Your task to perform on an android device: Open display settings Image 0: 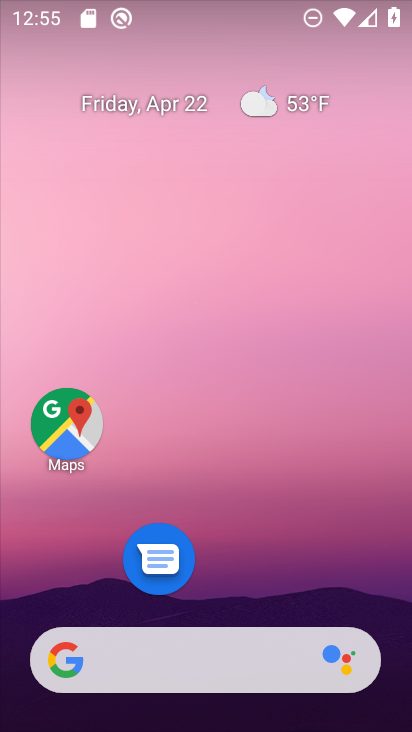
Step 0: drag from (245, 622) to (242, 151)
Your task to perform on an android device: Open display settings Image 1: 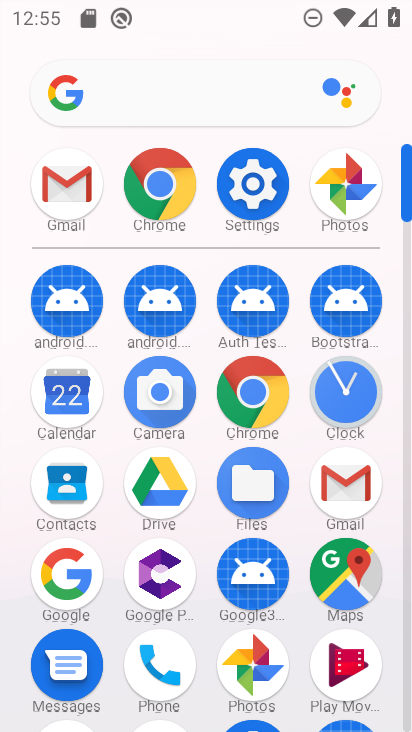
Step 1: click (256, 177)
Your task to perform on an android device: Open display settings Image 2: 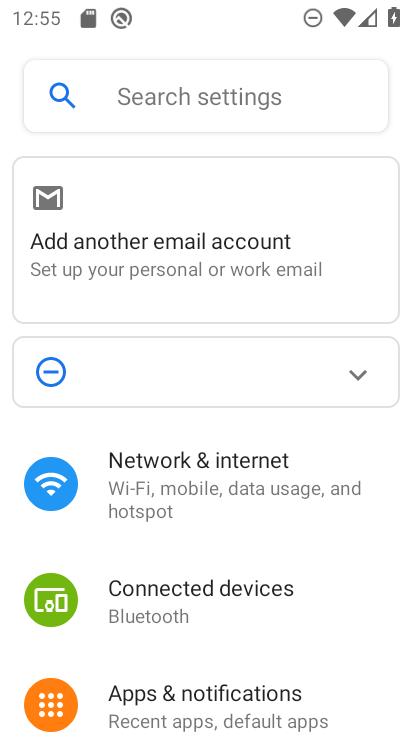
Step 2: drag from (223, 689) to (217, 350)
Your task to perform on an android device: Open display settings Image 3: 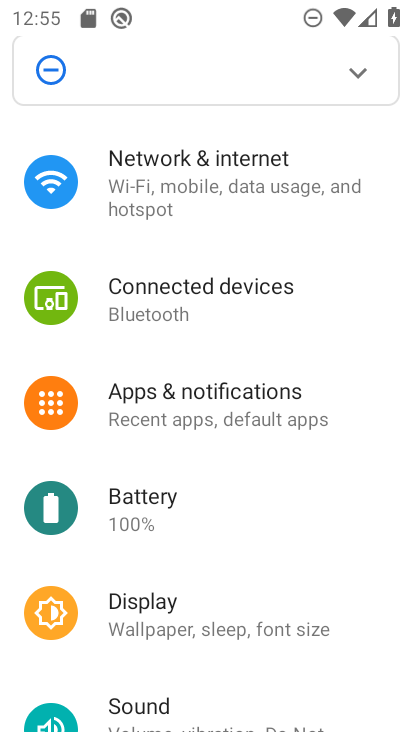
Step 3: click (169, 622)
Your task to perform on an android device: Open display settings Image 4: 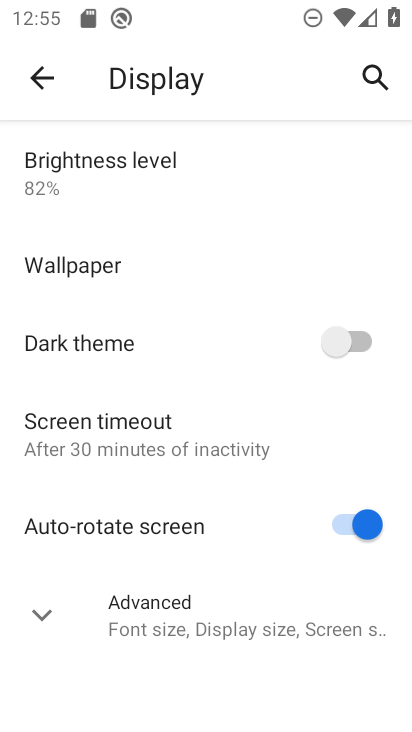
Step 4: task complete